Your task to perform on an android device: turn off sleep mode Image 0: 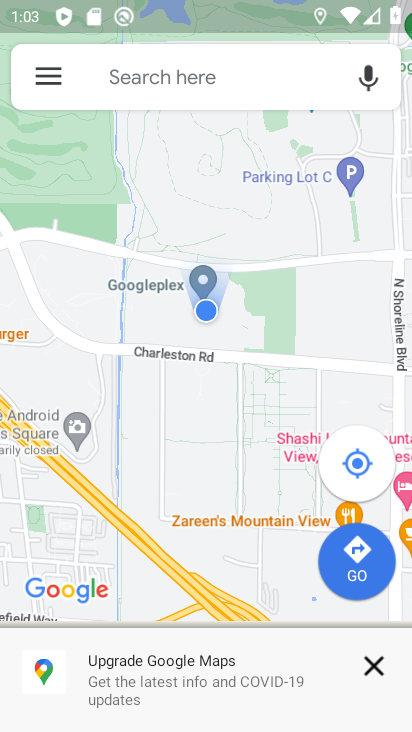
Step 0: press home button
Your task to perform on an android device: turn off sleep mode Image 1: 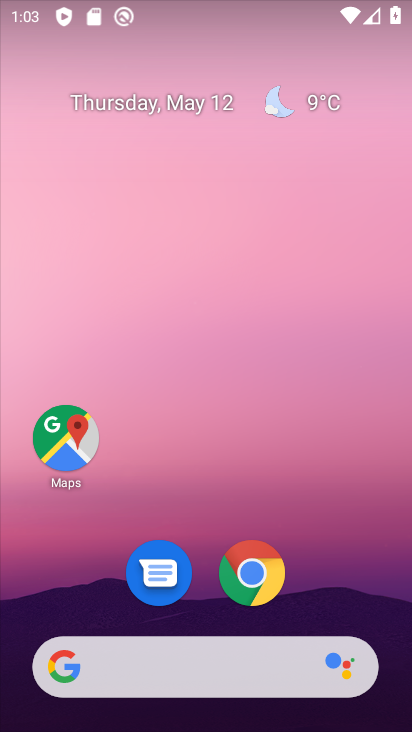
Step 1: drag from (314, 575) to (348, 44)
Your task to perform on an android device: turn off sleep mode Image 2: 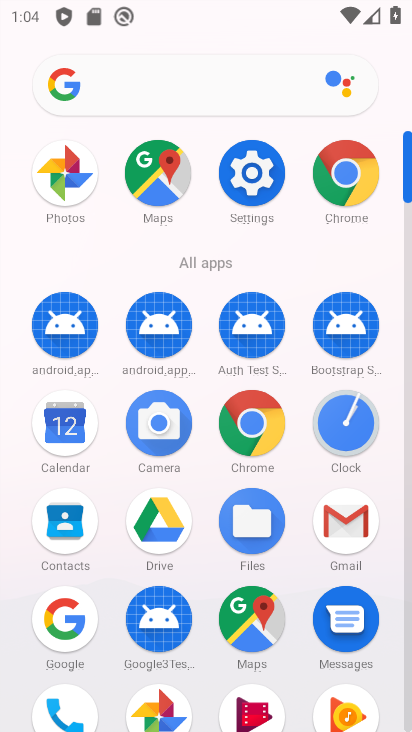
Step 2: click (241, 161)
Your task to perform on an android device: turn off sleep mode Image 3: 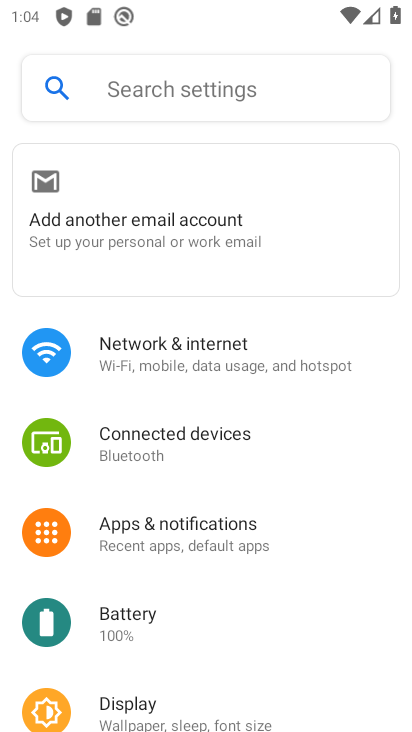
Step 3: drag from (195, 545) to (248, 252)
Your task to perform on an android device: turn off sleep mode Image 4: 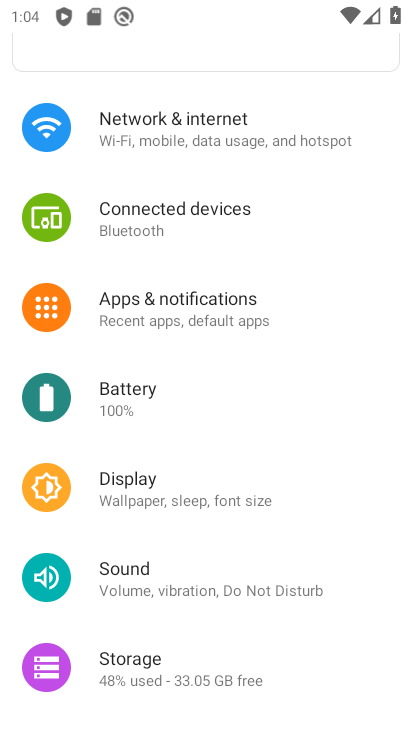
Step 4: click (192, 509)
Your task to perform on an android device: turn off sleep mode Image 5: 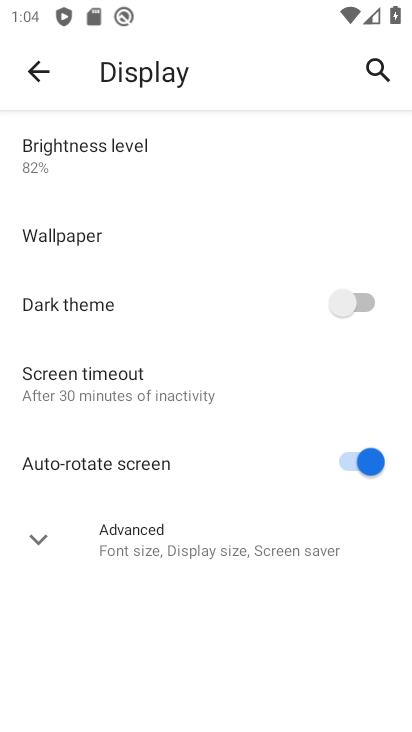
Step 5: click (273, 546)
Your task to perform on an android device: turn off sleep mode Image 6: 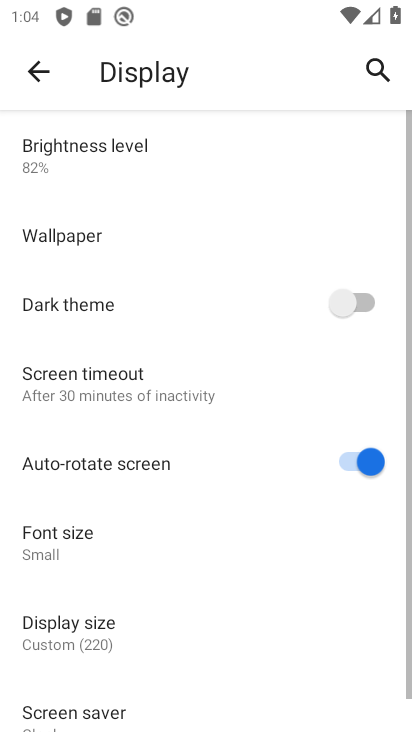
Step 6: task complete